Your task to perform on an android device: turn on wifi Image 0: 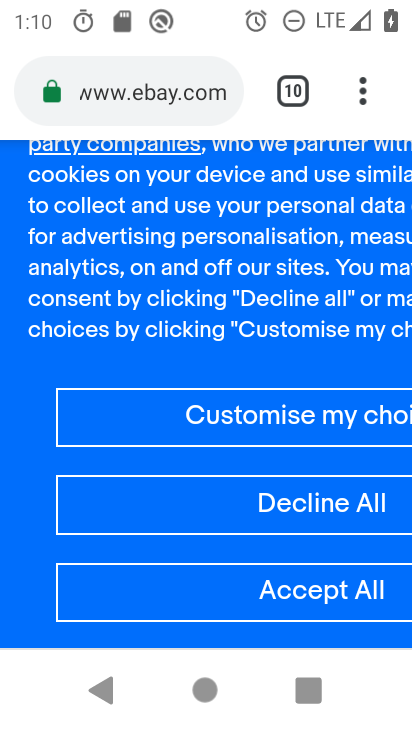
Step 0: press home button
Your task to perform on an android device: turn on wifi Image 1: 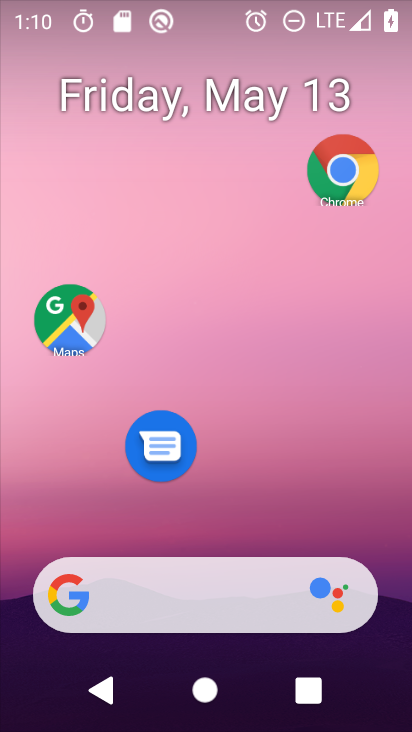
Step 1: drag from (325, 594) to (387, 206)
Your task to perform on an android device: turn on wifi Image 2: 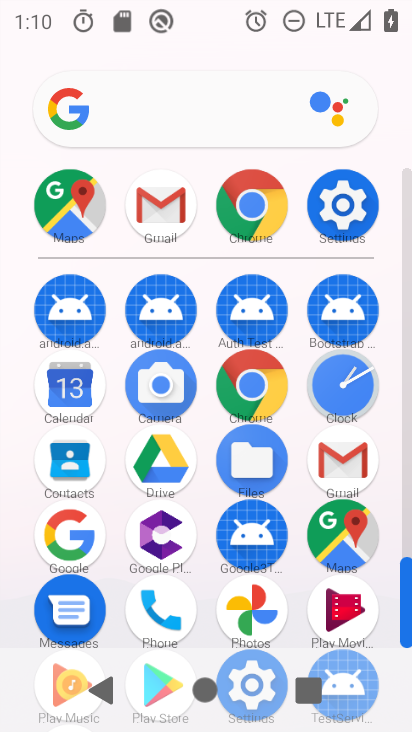
Step 2: click (356, 211)
Your task to perform on an android device: turn on wifi Image 3: 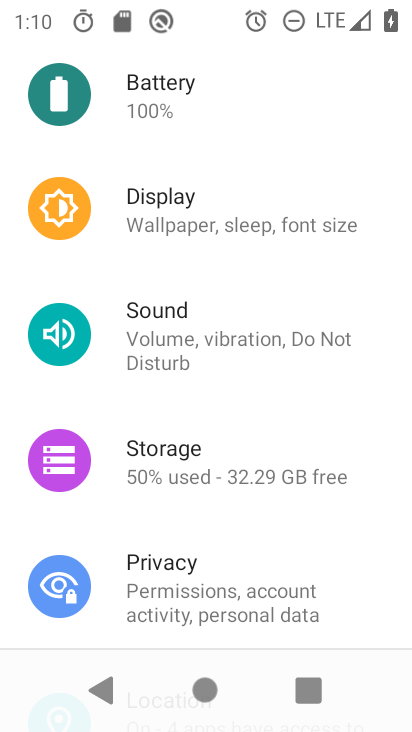
Step 3: drag from (290, 194) to (267, 581)
Your task to perform on an android device: turn on wifi Image 4: 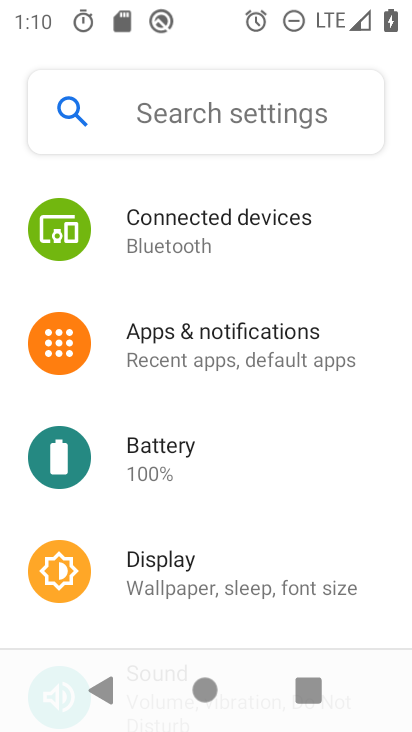
Step 4: drag from (323, 265) to (288, 628)
Your task to perform on an android device: turn on wifi Image 5: 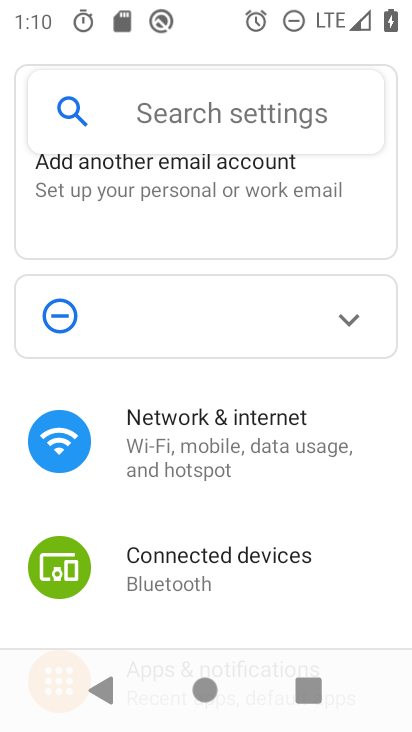
Step 5: click (260, 421)
Your task to perform on an android device: turn on wifi Image 6: 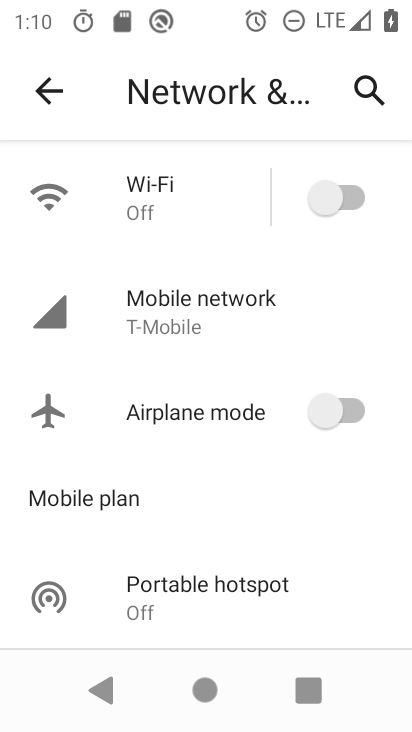
Step 6: click (346, 205)
Your task to perform on an android device: turn on wifi Image 7: 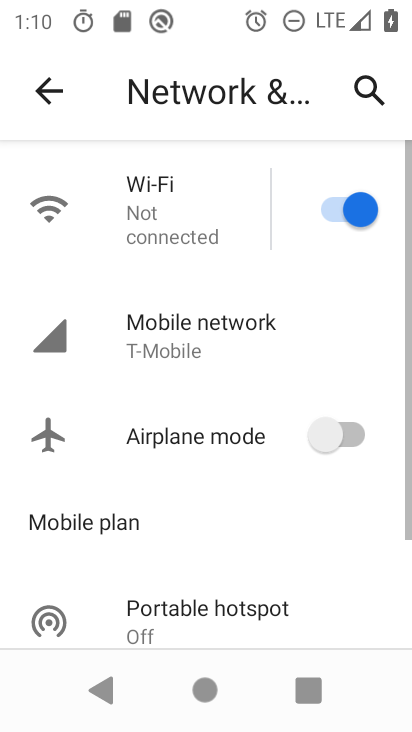
Step 7: task complete